Your task to perform on an android device: Go to internet settings Image 0: 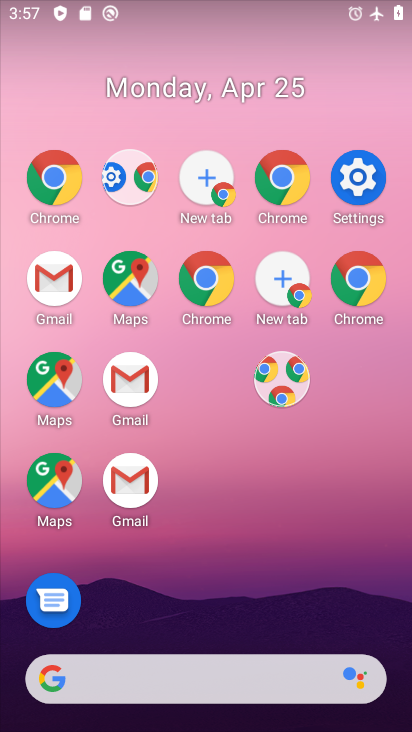
Step 0: drag from (244, 672) to (221, 153)
Your task to perform on an android device: Go to internet settings Image 1: 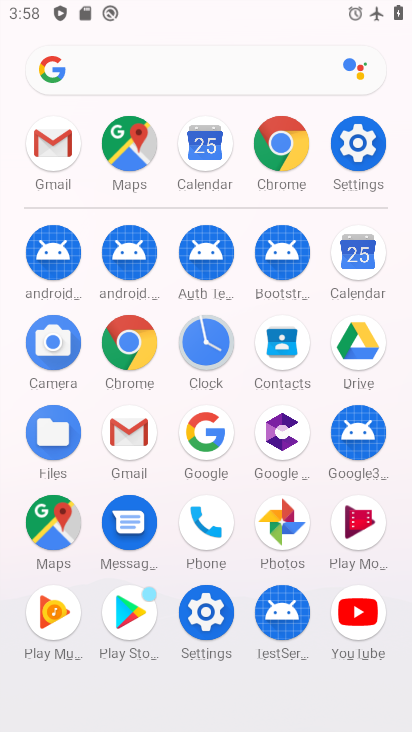
Step 1: click (355, 142)
Your task to perform on an android device: Go to internet settings Image 2: 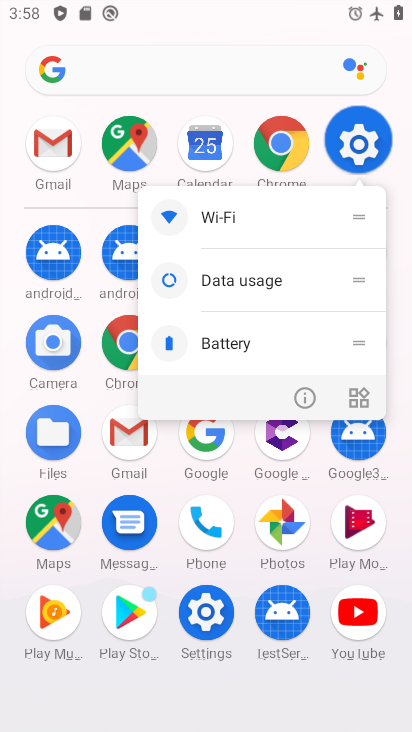
Step 2: click (355, 138)
Your task to perform on an android device: Go to internet settings Image 3: 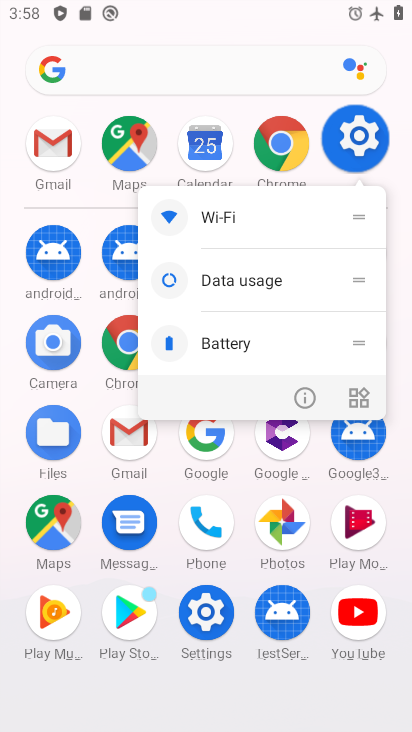
Step 3: click (352, 133)
Your task to perform on an android device: Go to internet settings Image 4: 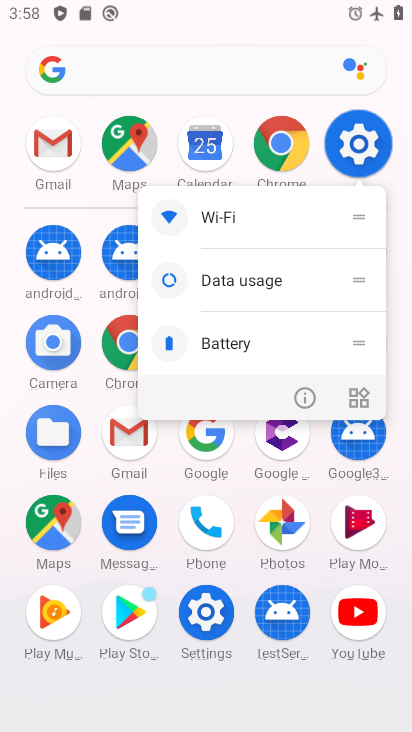
Step 4: click (351, 135)
Your task to perform on an android device: Go to internet settings Image 5: 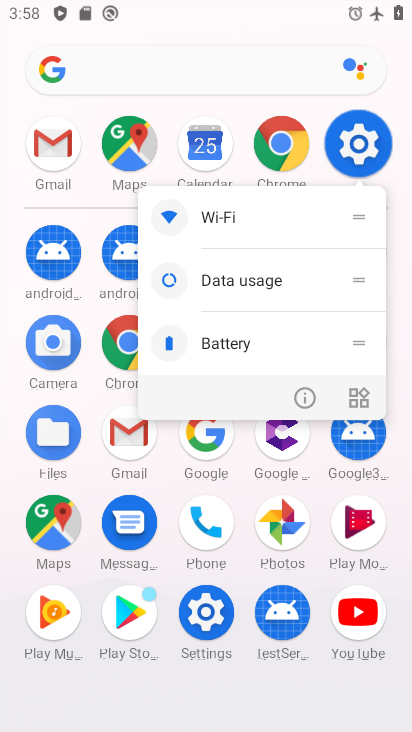
Step 5: click (352, 134)
Your task to perform on an android device: Go to internet settings Image 6: 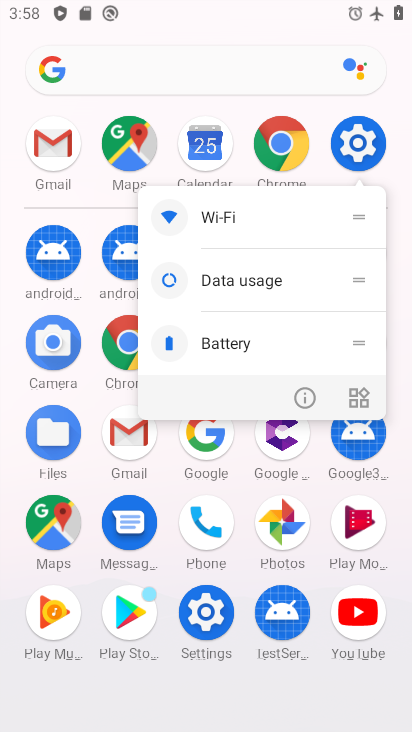
Step 6: click (353, 134)
Your task to perform on an android device: Go to internet settings Image 7: 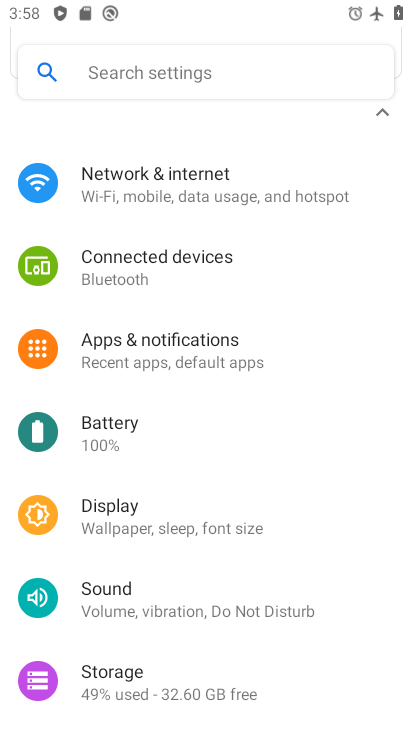
Step 7: click (124, 179)
Your task to perform on an android device: Go to internet settings Image 8: 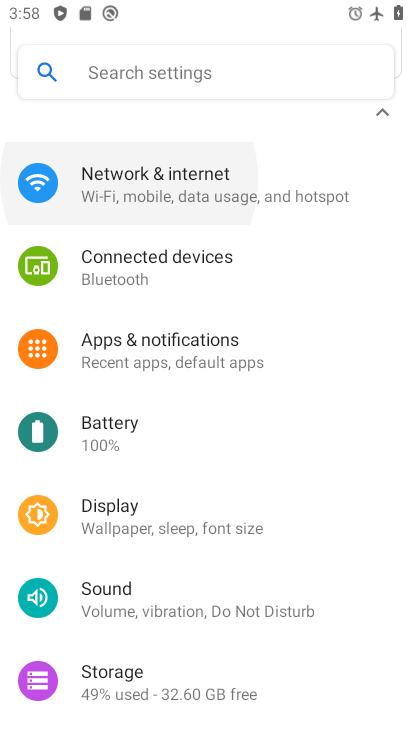
Step 8: click (125, 179)
Your task to perform on an android device: Go to internet settings Image 9: 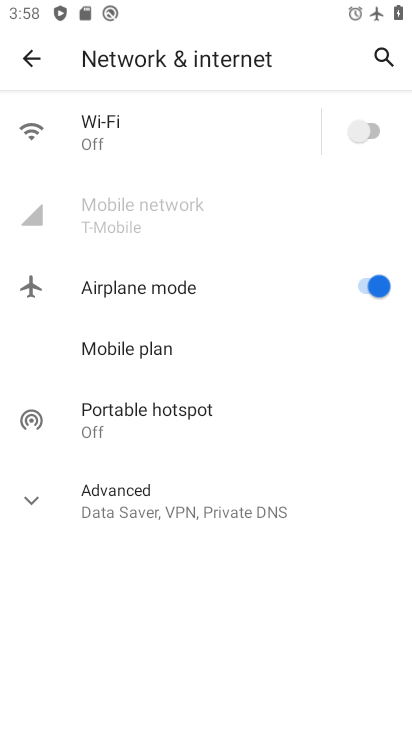
Step 9: task complete